Your task to perform on an android device: change the clock style Image 0: 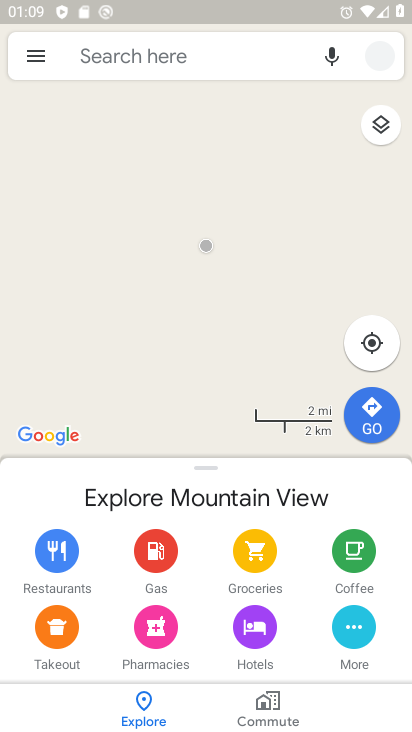
Step 0: click (345, 244)
Your task to perform on an android device: change the clock style Image 1: 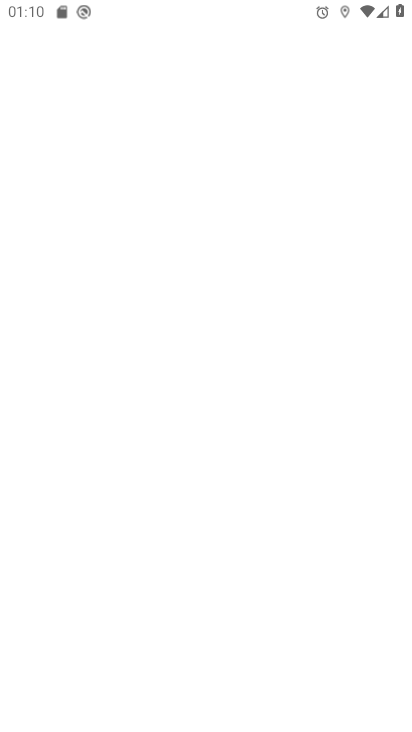
Step 1: click (384, 160)
Your task to perform on an android device: change the clock style Image 2: 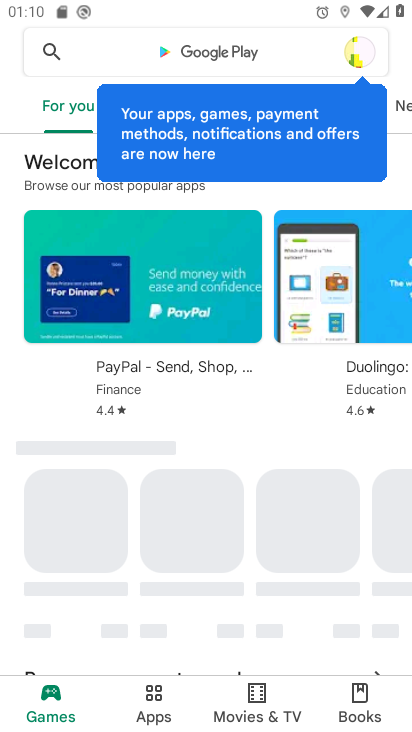
Step 2: press home button
Your task to perform on an android device: change the clock style Image 3: 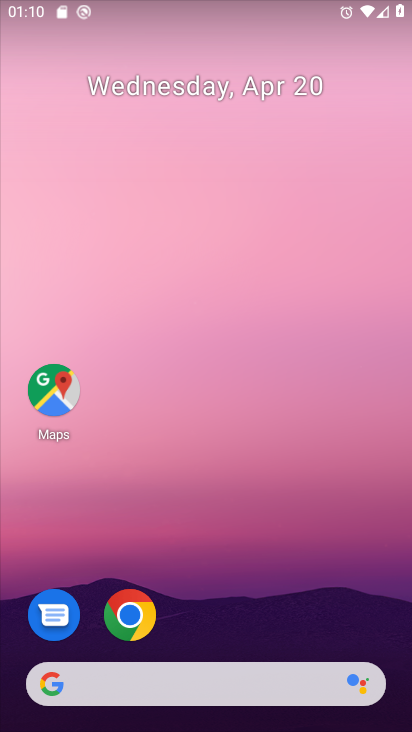
Step 3: drag from (371, 547) to (350, 132)
Your task to perform on an android device: change the clock style Image 4: 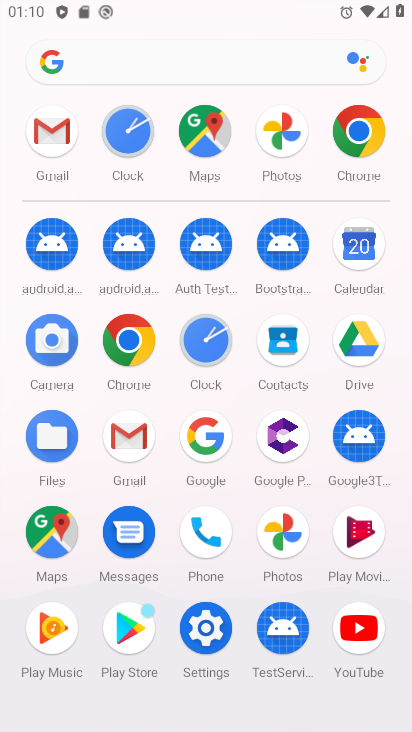
Step 4: click (201, 345)
Your task to perform on an android device: change the clock style Image 5: 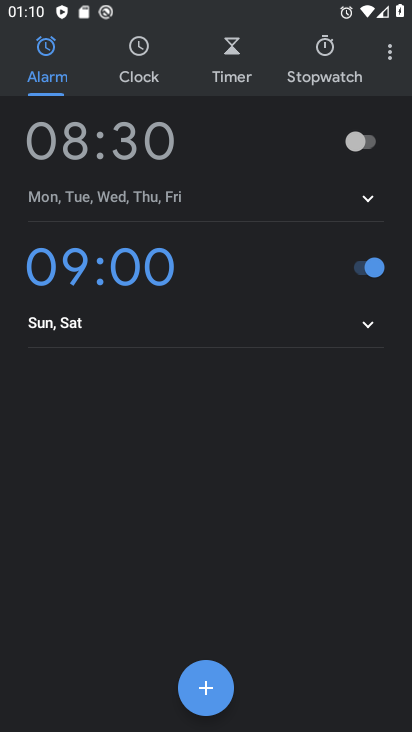
Step 5: click (388, 45)
Your task to perform on an android device: change the clock style Image 6: 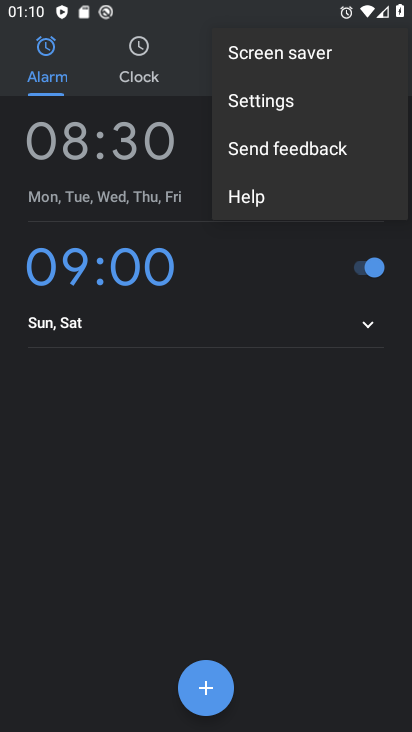
Step 6: click (262, 100)
Your task to perform on an android device: change the clock style Image 7: 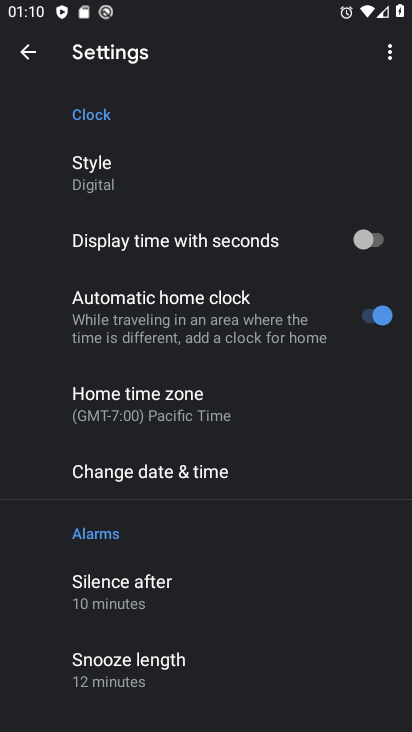
Step 7: click (90, 169)
Your task to perform on an android device: change the clock style Image 8: 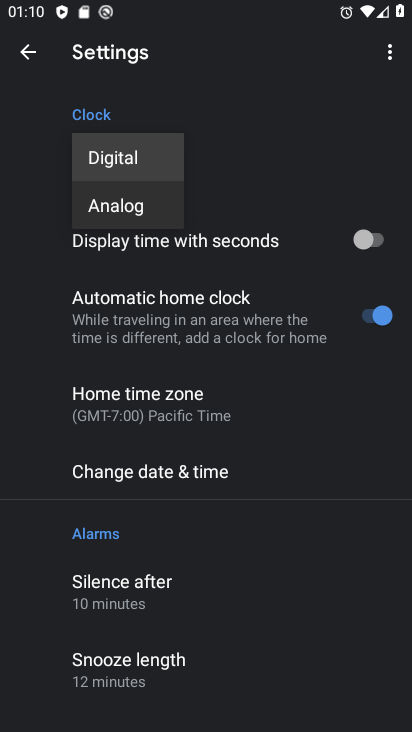
Step 8: click (128, 212)
Your task to perform on an android device: change the clock style Image 9: 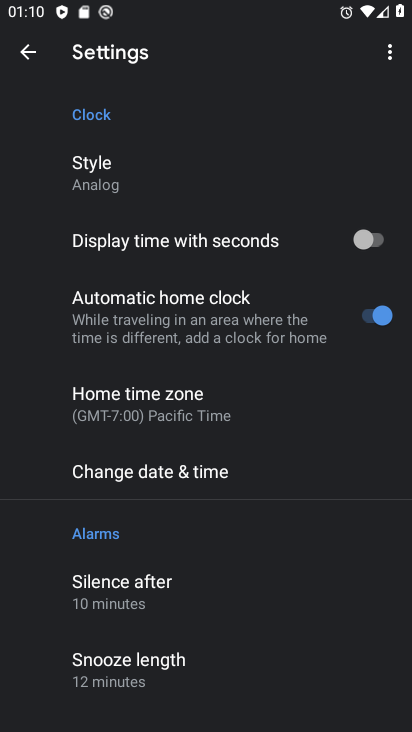
Step 9: task complete